Your task to perform on an android device: Open Youtube and go to the subscriptions tab Image 0: 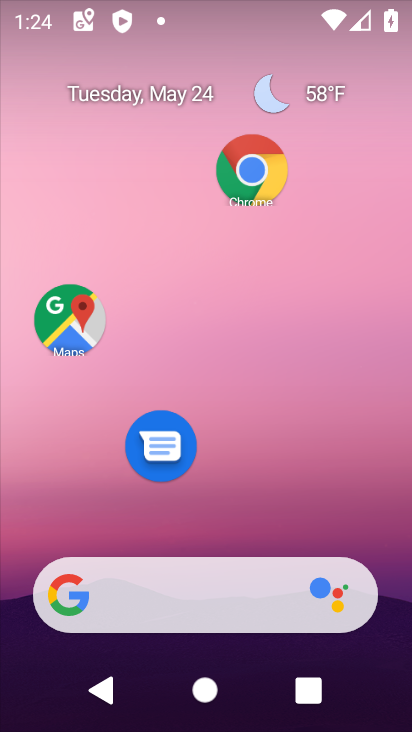
Step 0: drag from (221, 584) to (264, 83)
Your task to perform on an android device: Open Youtube and go to the subscriptions tab Image 1: 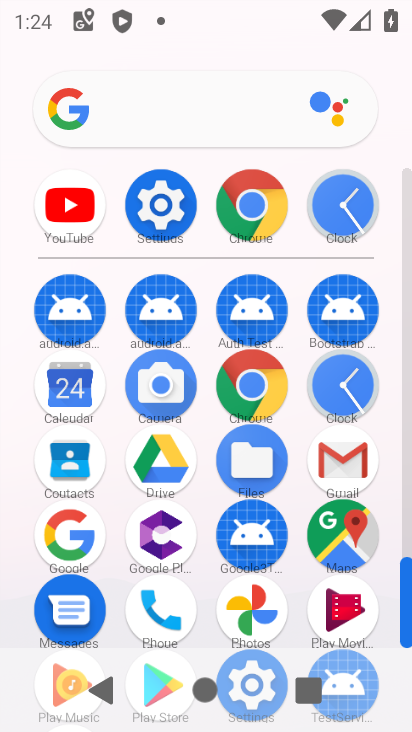
Step 1: click (75, 222)
Your task to perform on an android device: Open Youtube and go to the subscriptions tab Image 2: 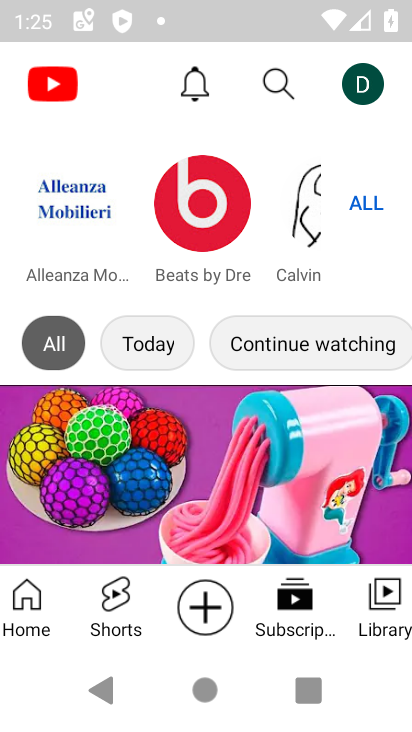
Step 2: task complete